Your task to perform on an android device: change notification settings in the gmail app Image 0: 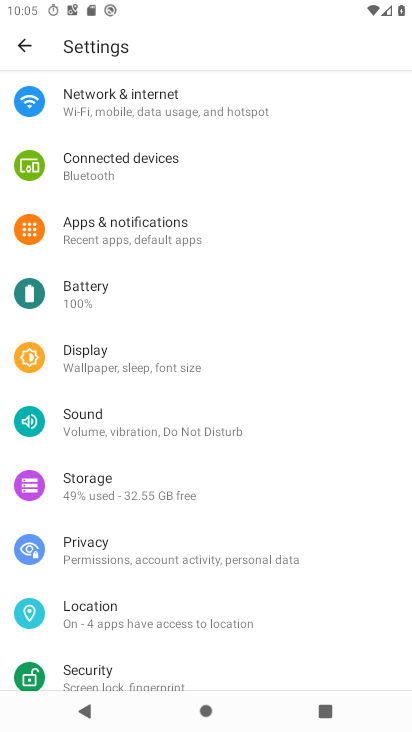
Step 0: press home button
Your task to perform on an android device: change notification settings in the gmail app Image 1: 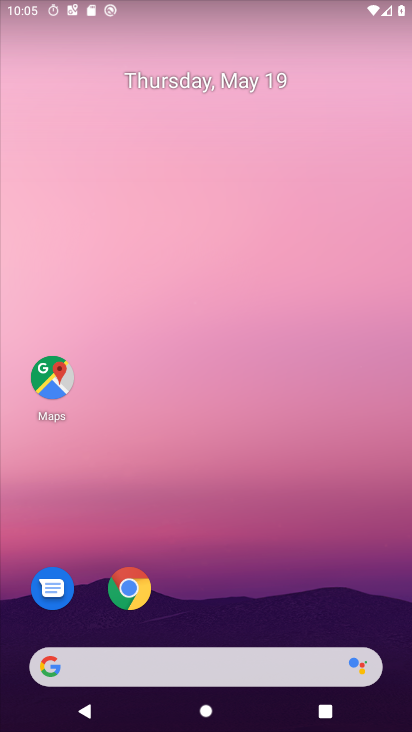
Step 1: drag from (139, 639) to (307, 75)
Your task to perform on an android device: change notification settings in the gmail app Image 2: 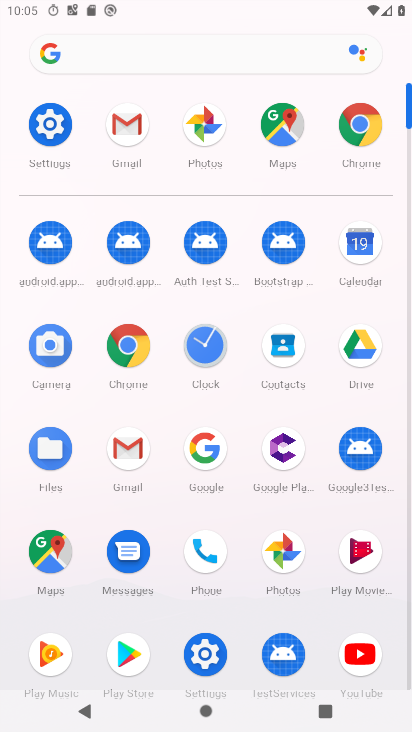
Step 2: click (135, 136)
Your task to perform on an android device: change notification settings in the gmail app Image 3: 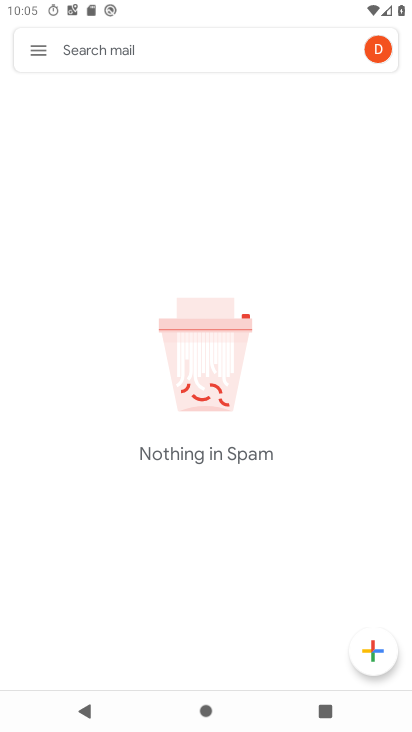
Step 3: click (41, 51)
Your task to perform on an android device: change notification settings in the gmail app Image 4: 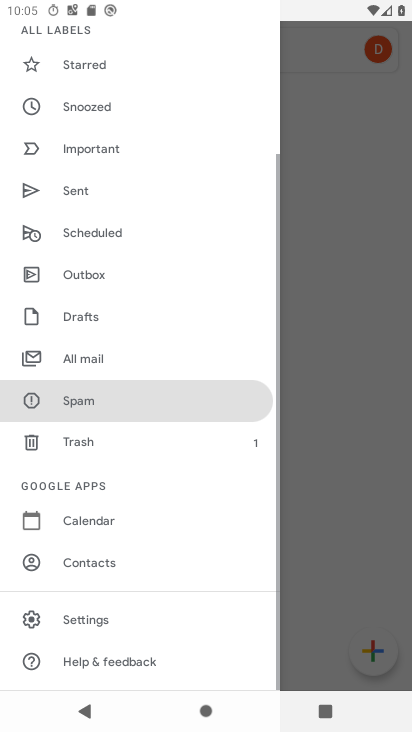
Step 4: click (97, 618)
Your task to perform on an android device: change notification settings in the gmail app Image 5: 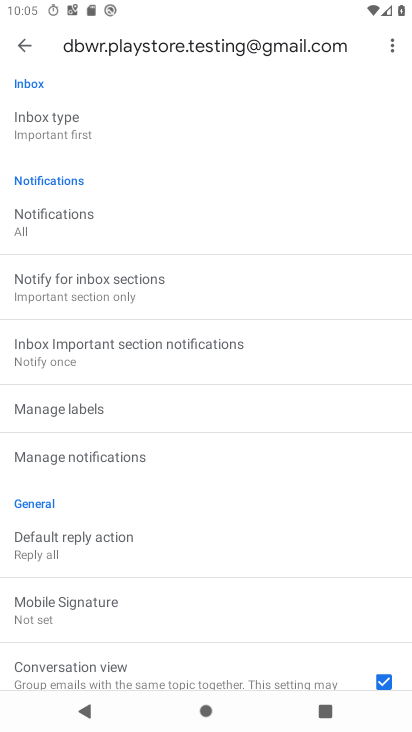
Step 5: click (53, 216)
Your task to perform on an android device: change notification settings in the gmail app Image 6: 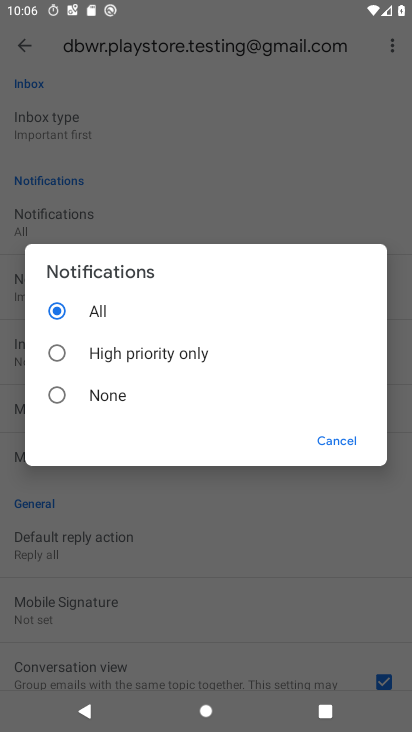
Step 6: click (62, 397)
Your task to perform on an android device: change notification settings in the gmail app Image 7: 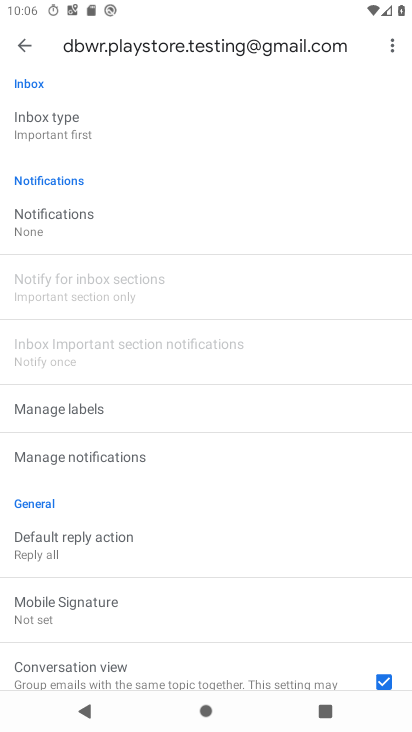
Step 7: task complete